Your task to perform on an android device: Go to settings Image 0: 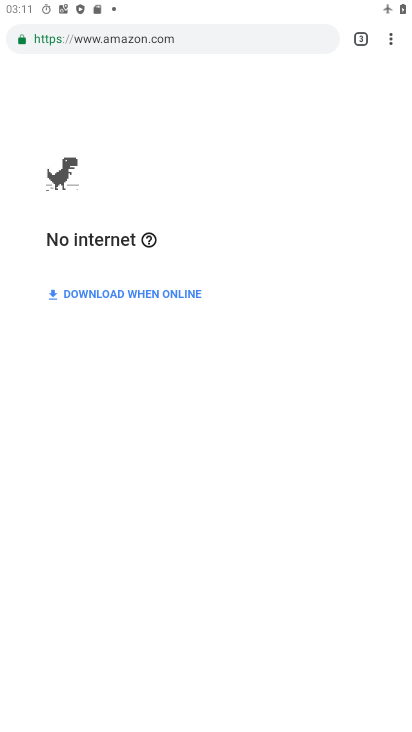
Step 0: press home button
Your task to perform on an android device: Go to settings Image 1: 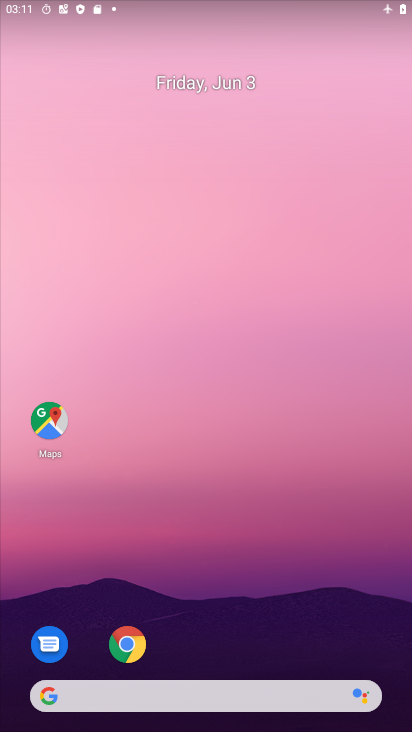
Step 1: drag from (210, 667) to (303, 221)
Your task to perform on an android device: Go to settings Image 2: 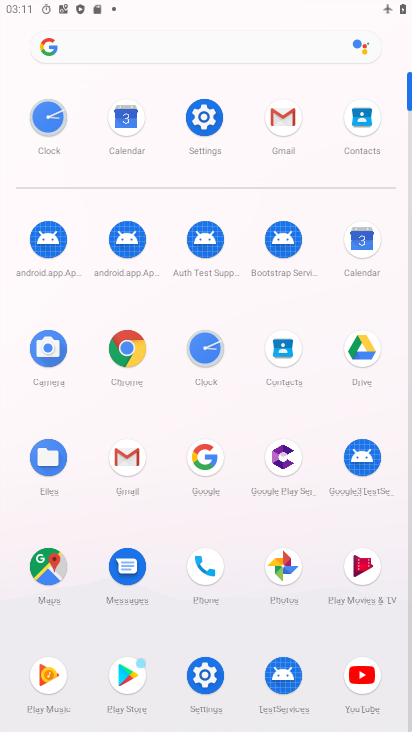
Step 2: click (217, 111)
Your task to perform on an android device: Go to settings Image 3: 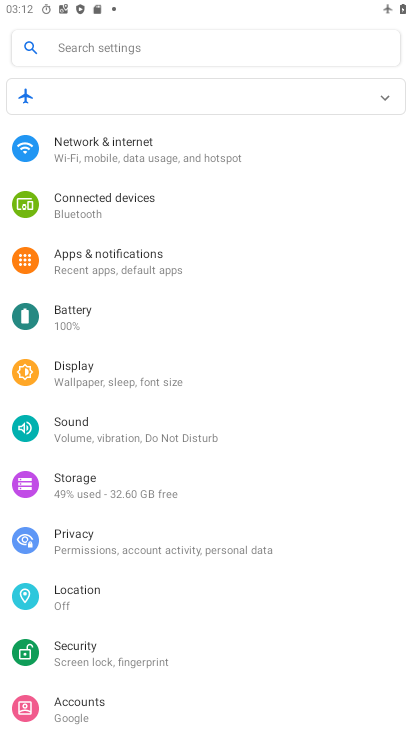
Step 3: task complete